Your task to perform on an android device: open a new tab in the chrome app Image 0: 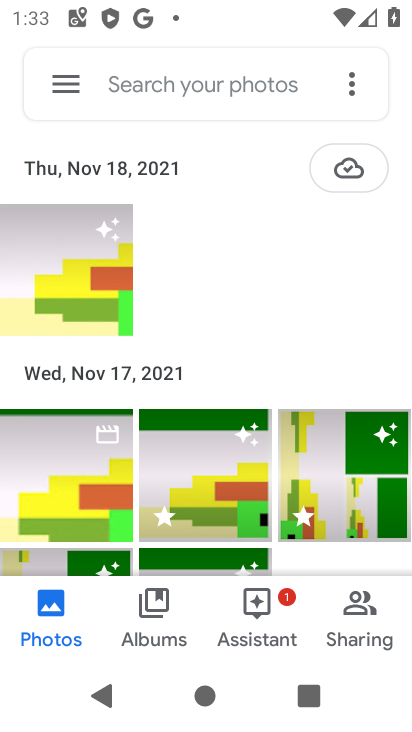
Step 0: press home button
Your task to perform on an android device: open a new tab in the chrome app Image 1: 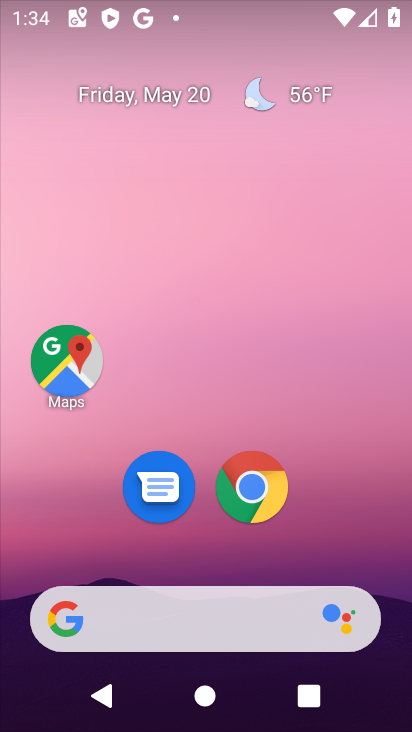
Step 1: click (253, 478)
Your task to perform on an android device: open a new tab in the chrome app Image 2: 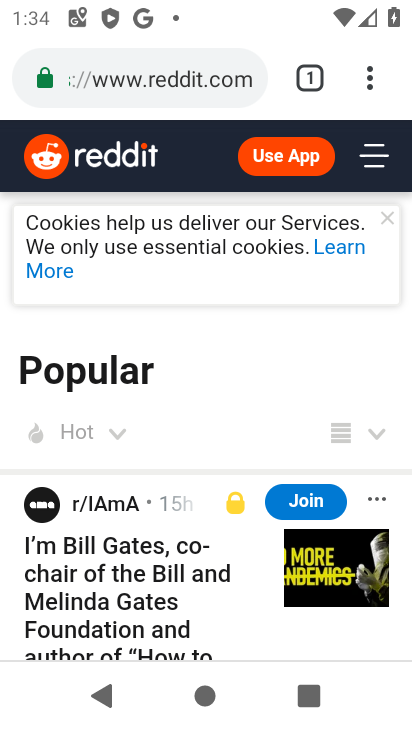
Step 2: click (304, 75)
Your task to perform on an android device: open a new tab in the chrome app Image 3: 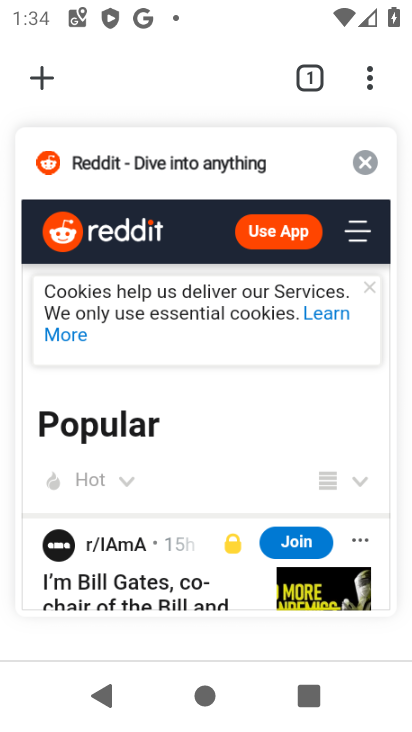
Step 3: click (47, 78)
Your task to perform on an android device: open a new tab in the chrome app Image 4: 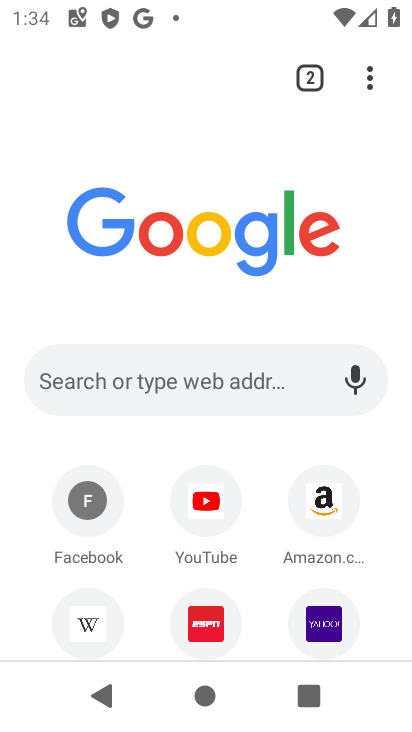
Step 4: task complete